Your task to perform on an android device: Search for pizza restaurants on Maps Image 0: 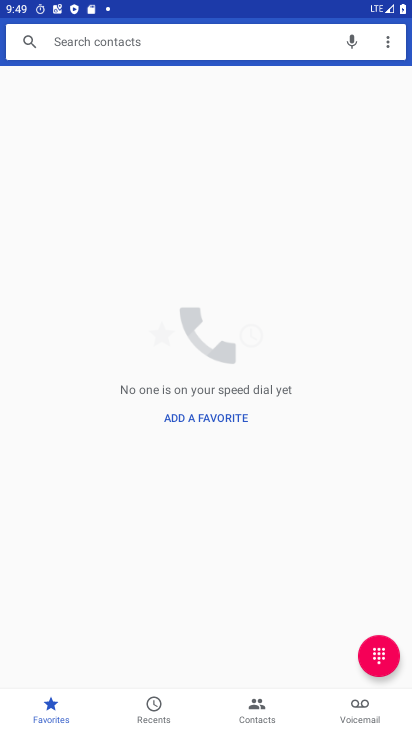
Step 0: press home button
Your task to perform on an android device: Search for pizza restaurants on Maps Image 1: 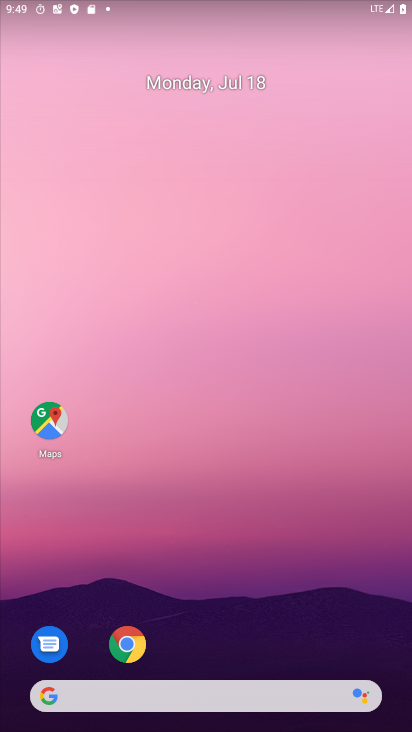
Step 1: click (51, 418)
Your task to perform on an android device: Search for pizza restaurants on Maps Image 2: 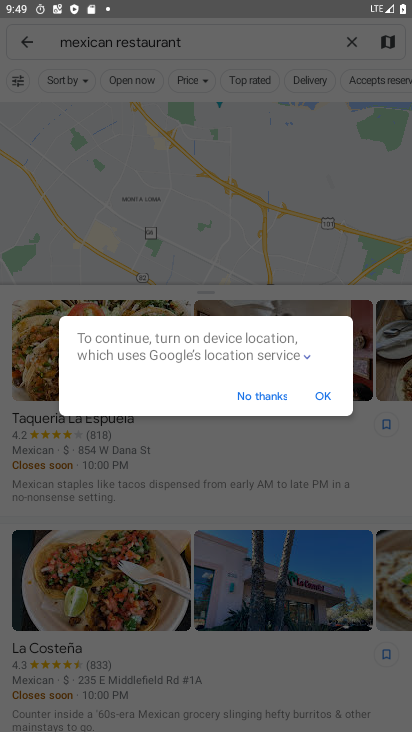
Step 2: click (346, 39)
Your task to perform on an android device: Search for pizza restaurants on Maps Image 3: 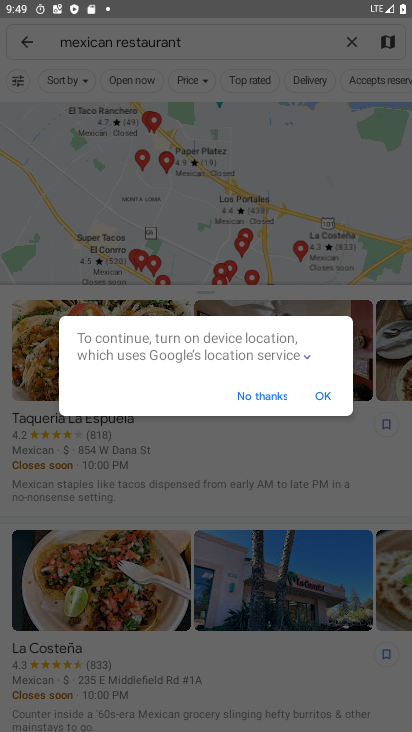
Step 3: click (332, 389)
Your task to perform on an android device: Search for pizza restaurants on Maps Image 4: 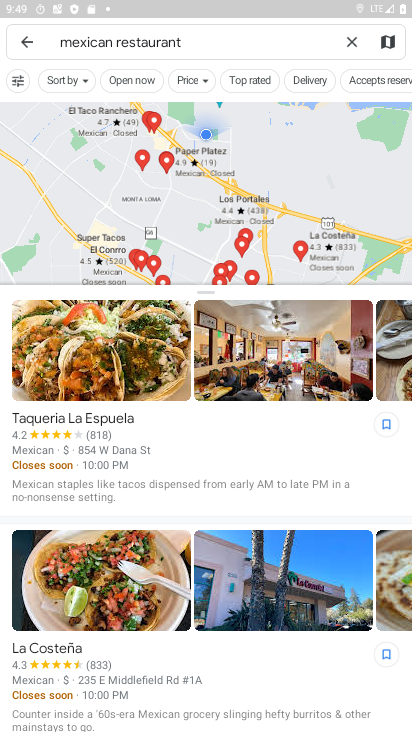
Step 4: click (352, 35)
Your task to perform on an android device: Search for pizza restaurants on Maps Image 5: 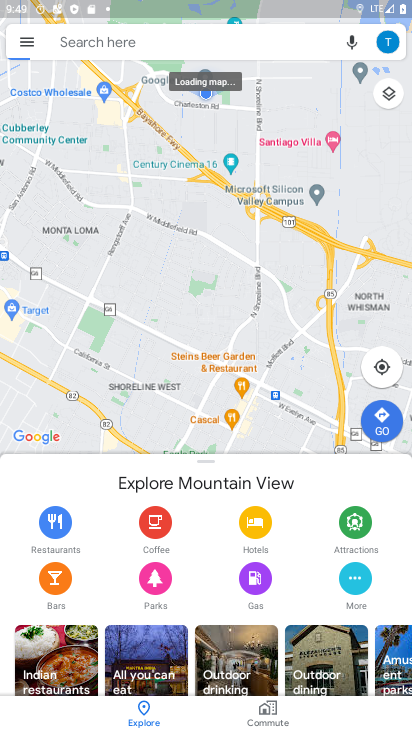
Step 5: click (120, 40)
Your task to perform on an android device: Search for pizza restaurants on Maps Image 6: 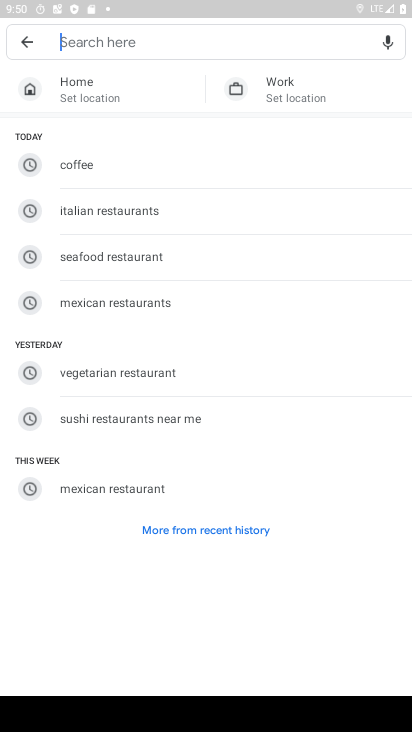
Step 6: type "pizza restaurants"
Your task to perform on an android device: Search for pizza restaurants on Maps Image 7: 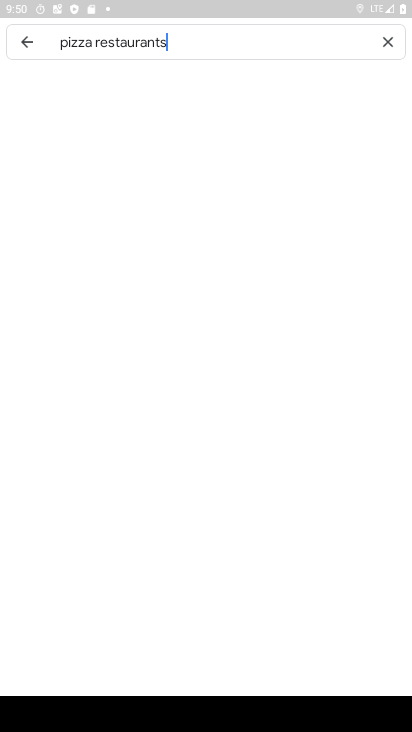
Step 7: type ""
Your task to perform on an android device: Search for pizza restaurants on Maps Image 8: 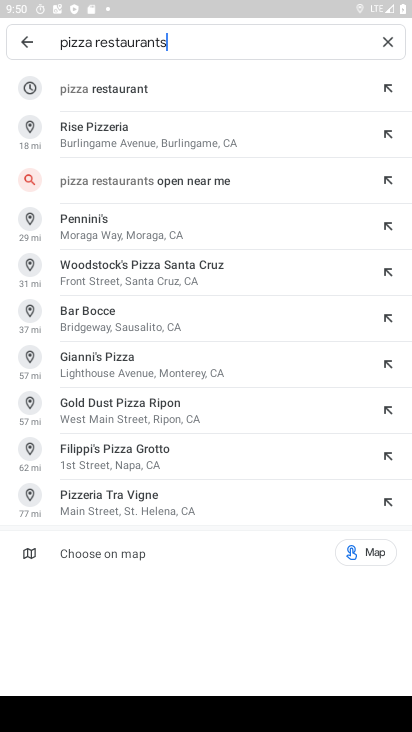
Step 8: click (180, 83)
Your task to perform on an android device: Search for pizza restaurants on Maps Image 9: 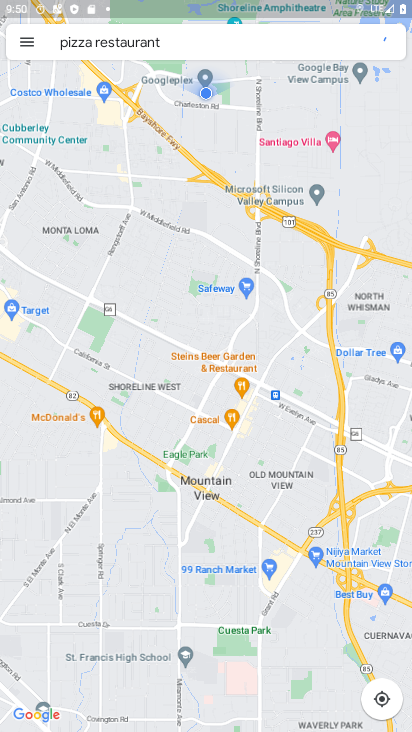
Step 9: task complete